Your task to perform on an android device: Search for flights from San Francisco to Tokyo Image 0: 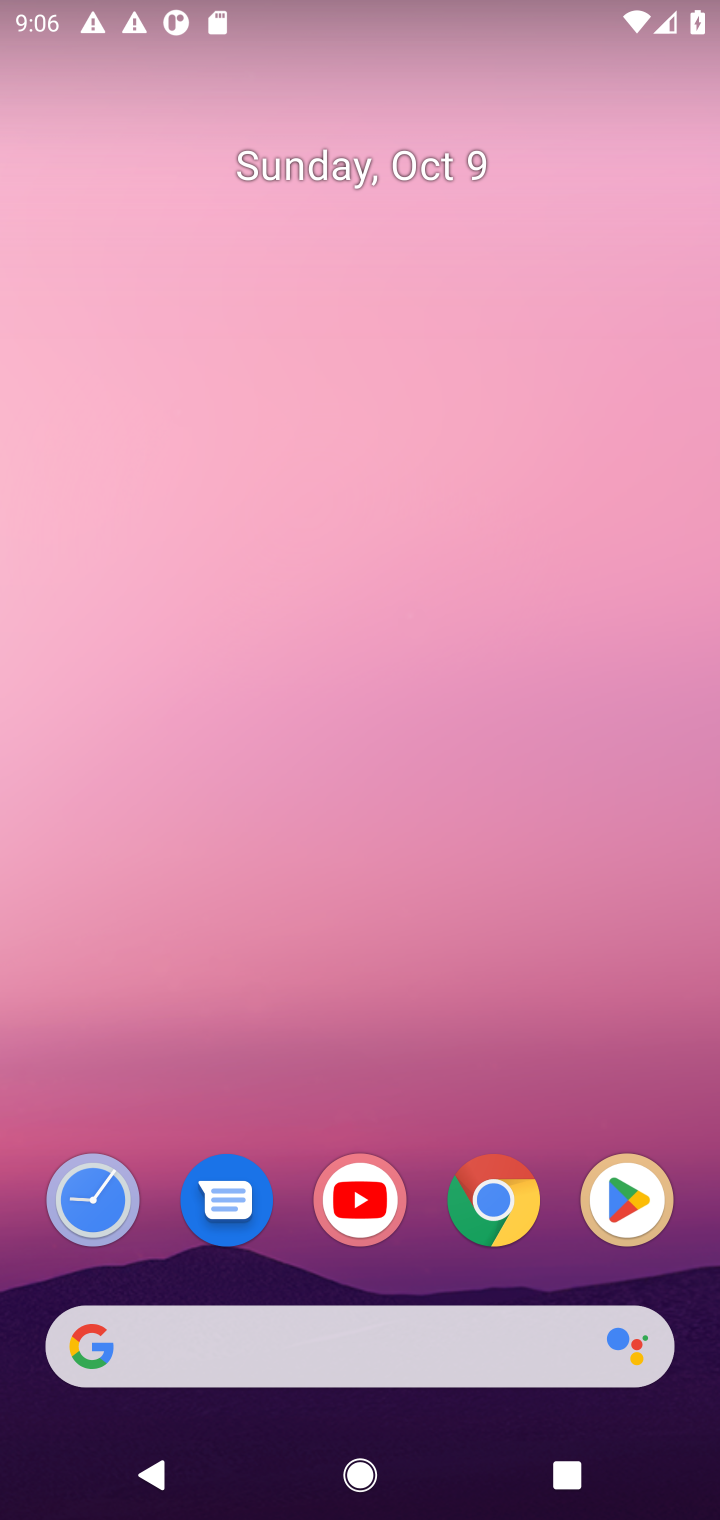
Step 0: click (501, 1177)
Your task to perform on an android device: Search for flights from San Francisco to Tokyo Image 1: 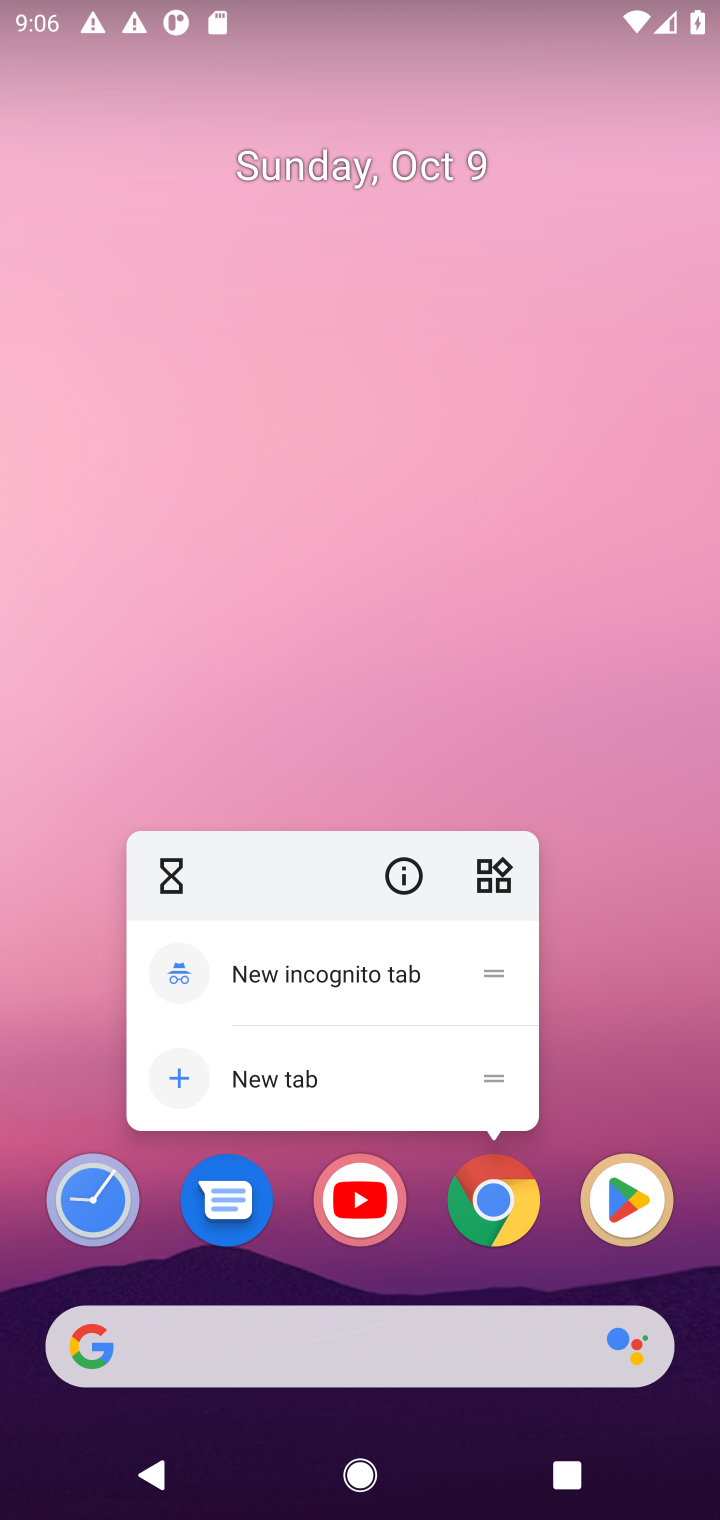
Step 1: click (491, 1210)
Your task to perform on an android device: Search for flights from San Francisco to Tokyo Image 2: 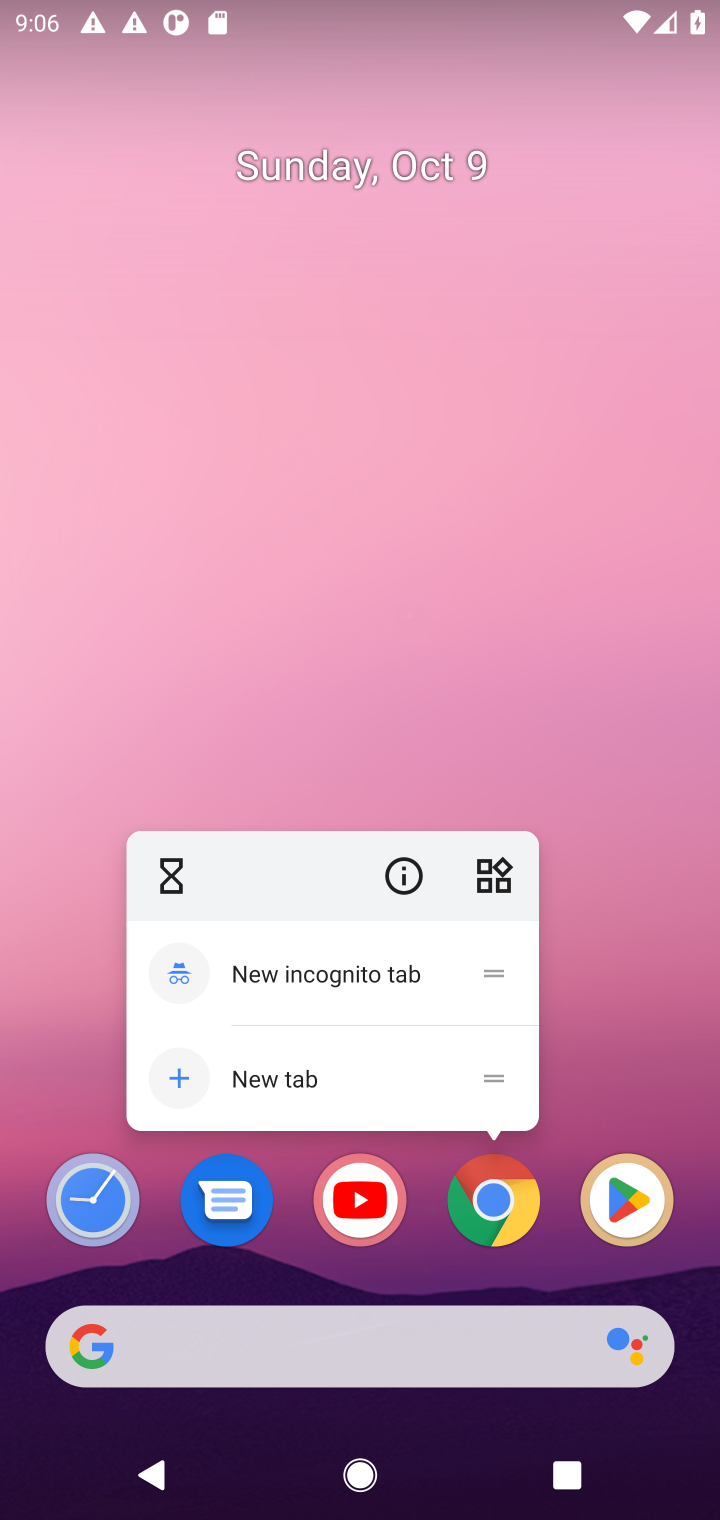
Step 2: click (483, 1203)
Your task to perform on an android device: Search for flights from San Francisco to Tokyo Image 3: 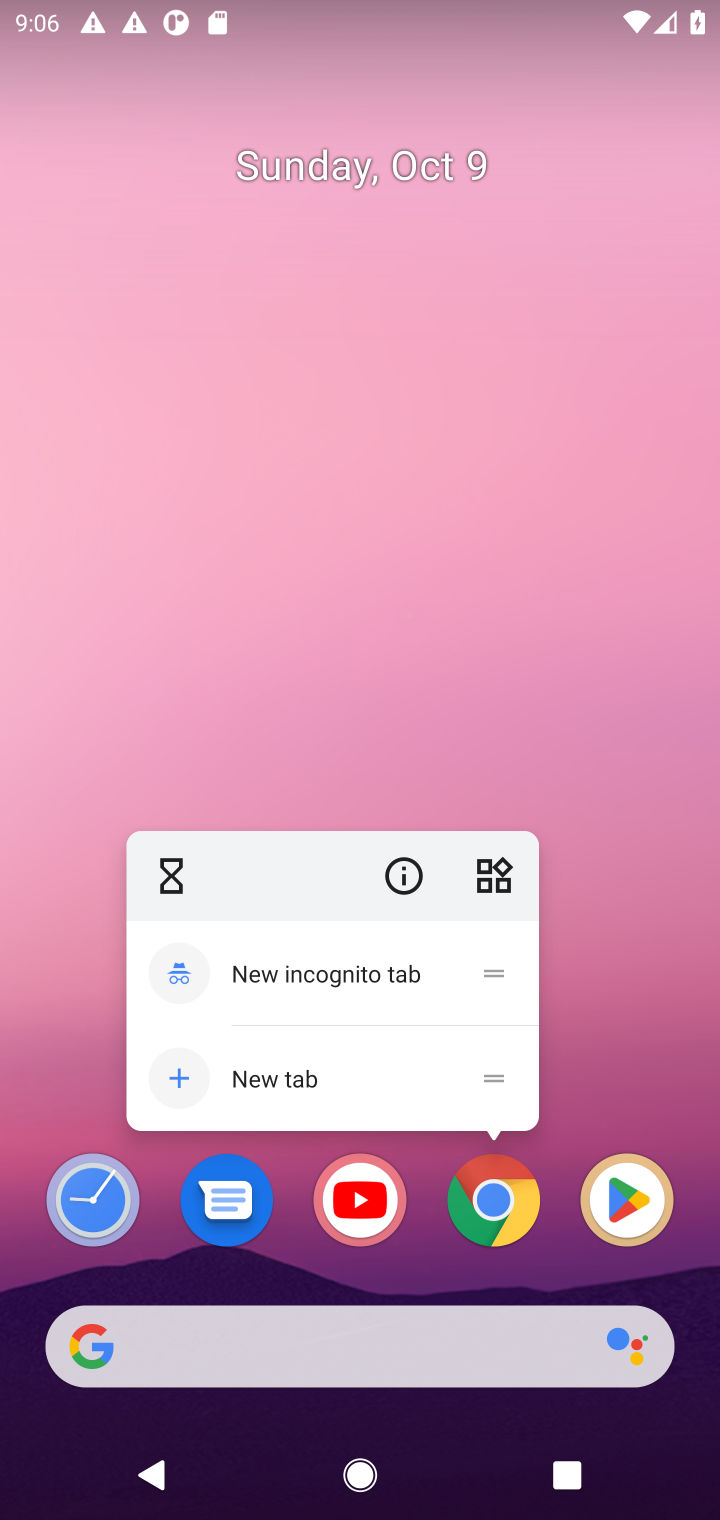
Step 3: click (483, 1203)
Your task to perform on an android device: Search for flights from San Francisco to Tokyo Image 4: 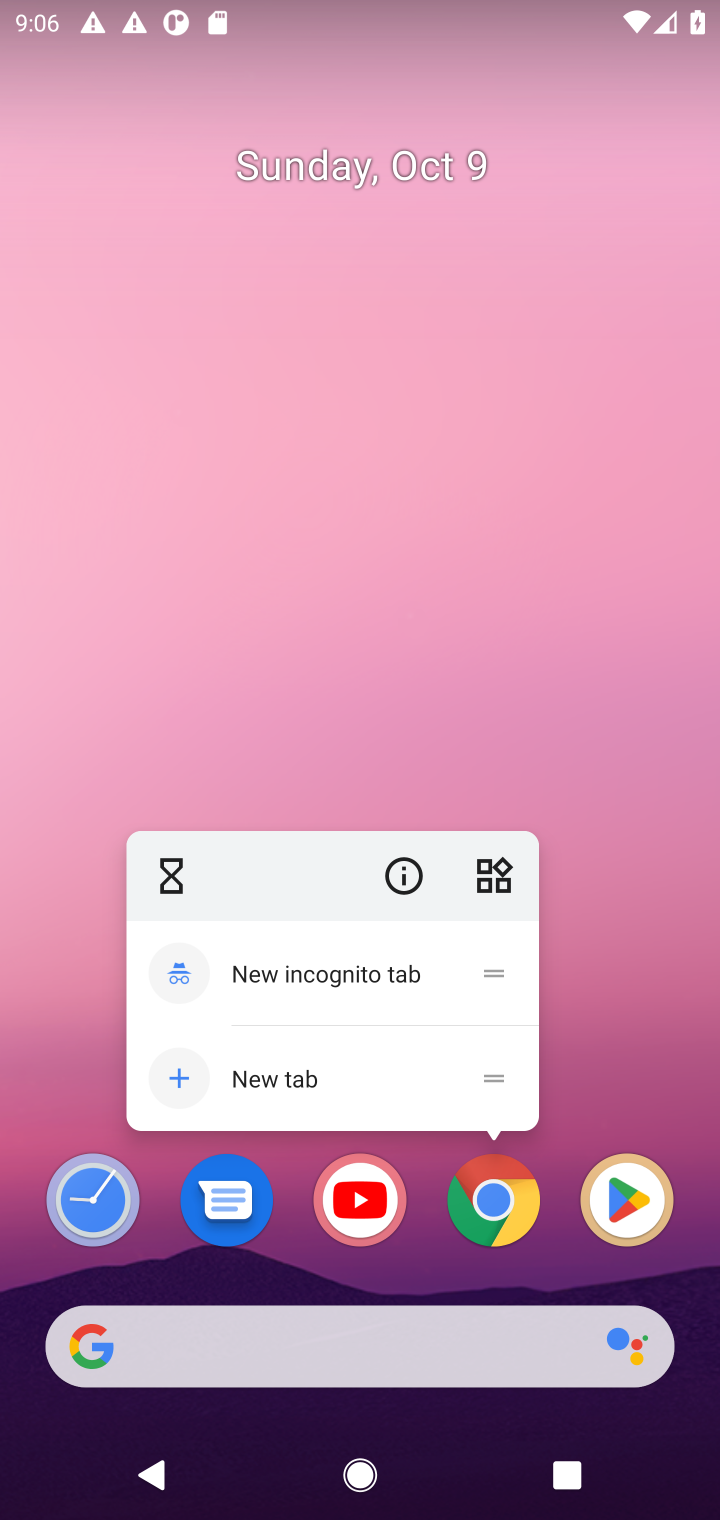
Step 4: click (483, 1203)
Your task to perform on an android device: Search for flights from San Francisco to Tokyo Image 5: 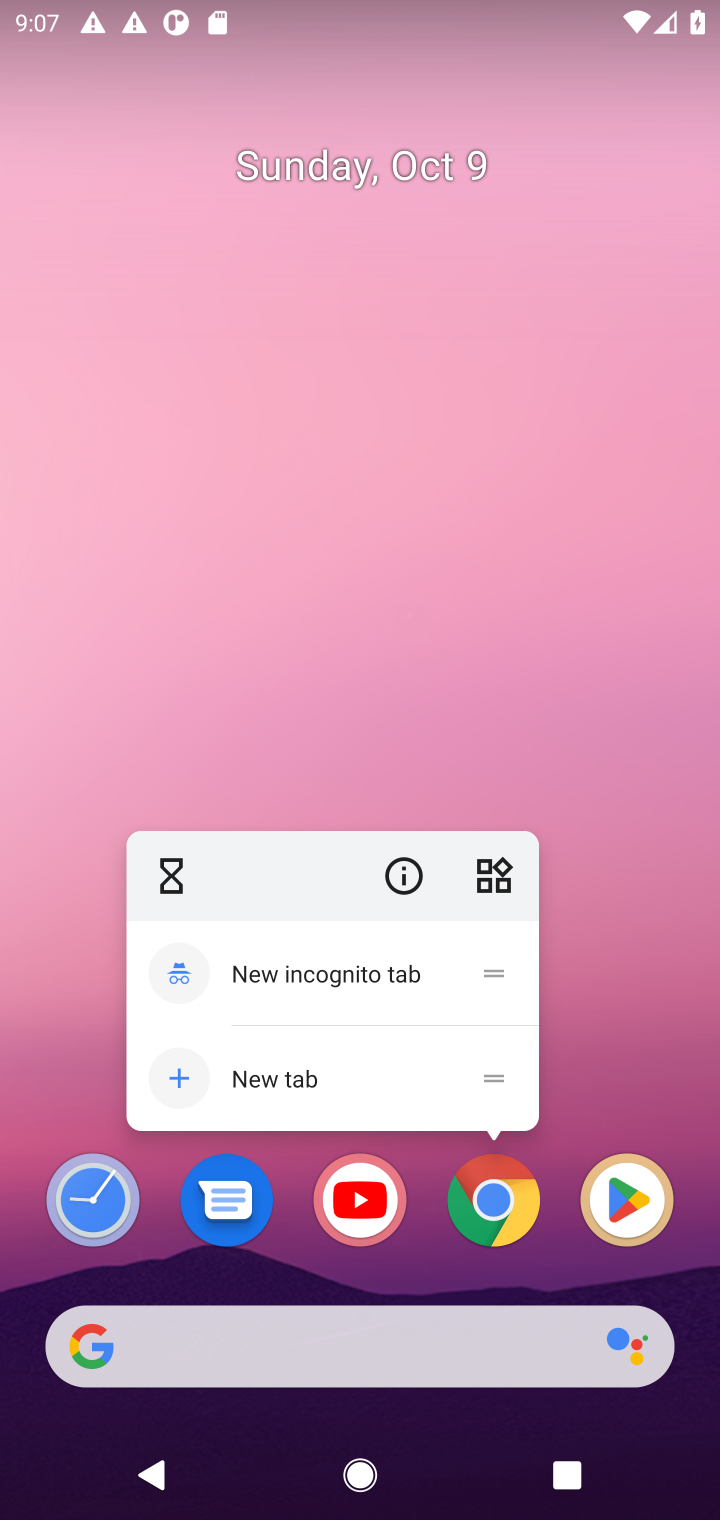
Step 5: click (485, 1190)
Your task to perform on an android device: Search for flights from San Francisco to Tokyo Image 6: 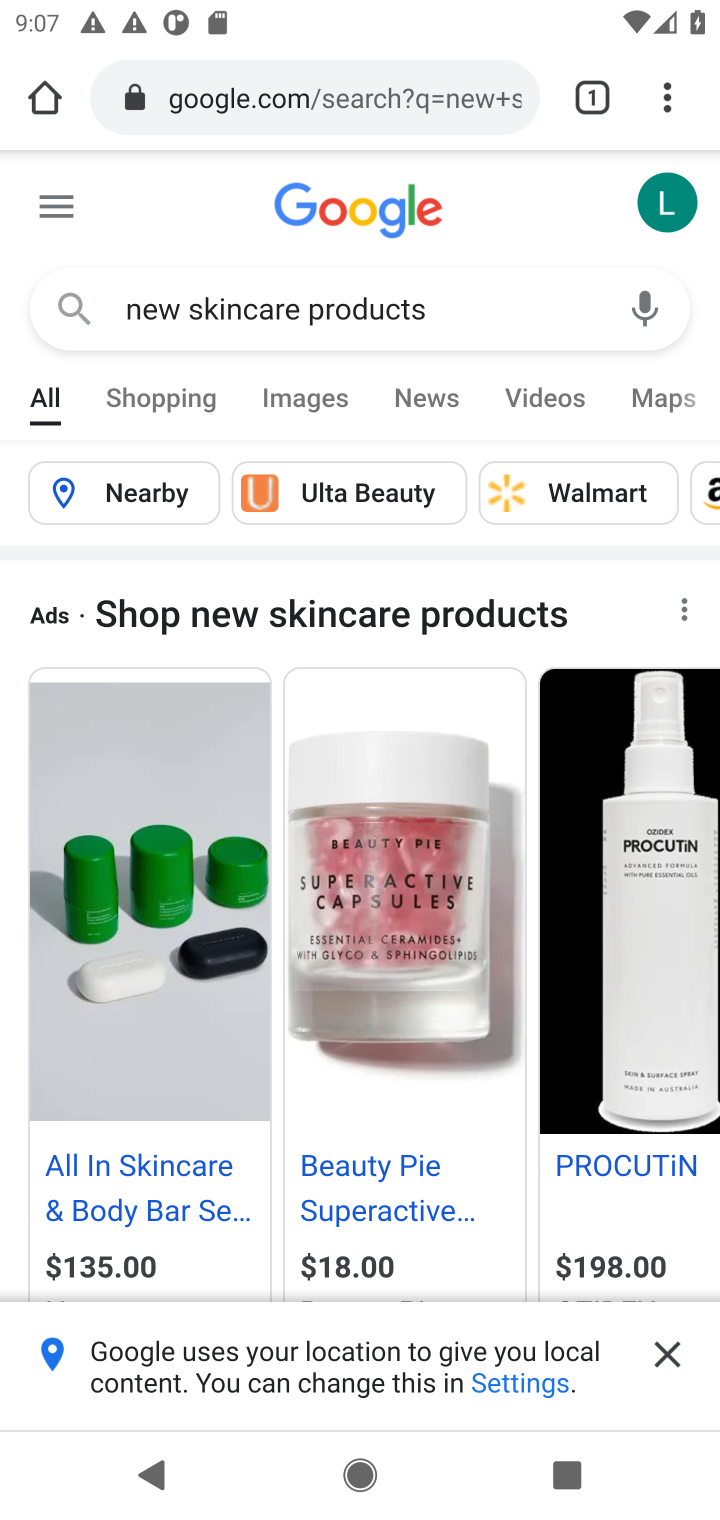
Step 6: click (387, 93)
Your task to perform on an android device: Search for flights from San Francisco to Tokyo Image 7: 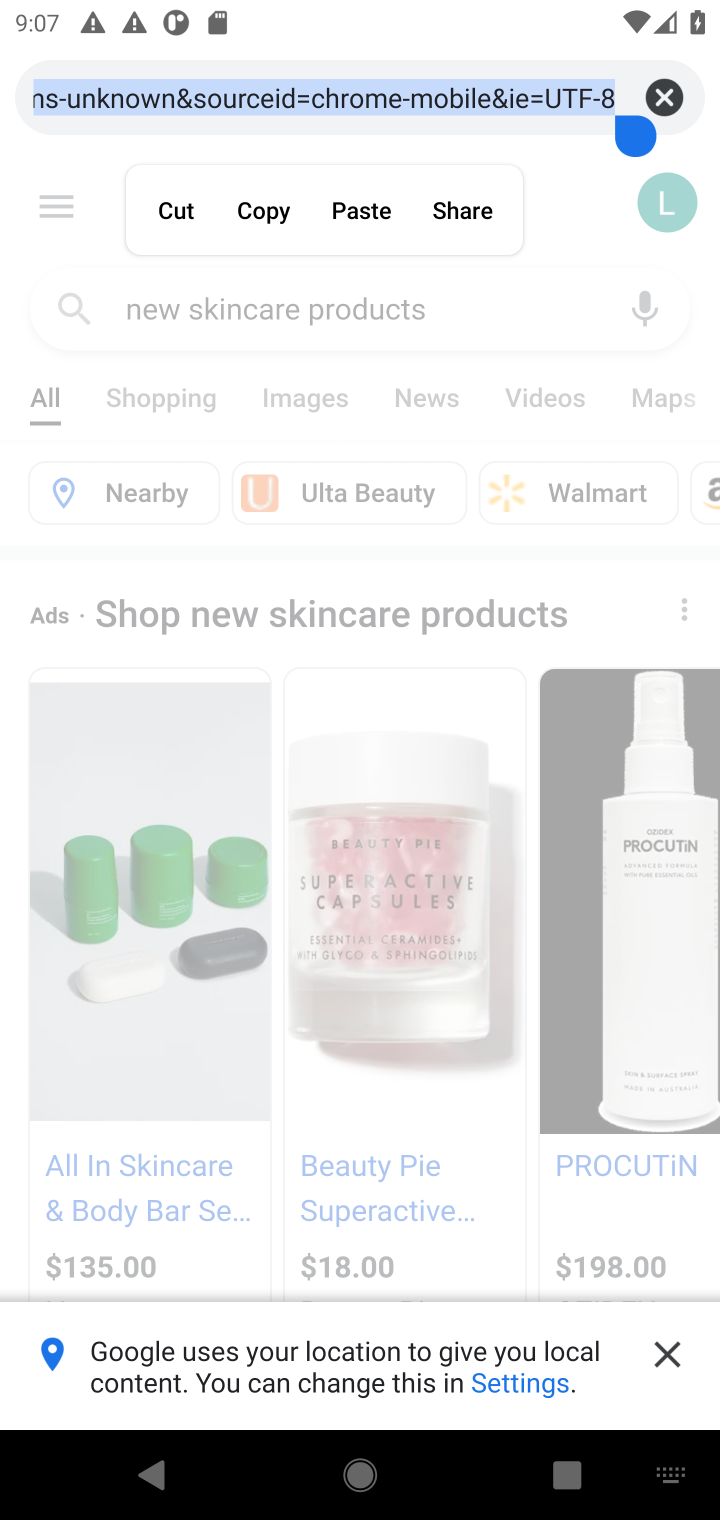
Step 7: click (675, 92)
Your task to perform on an android device: Search for flights from San Francisco to Tokyo Image 8: 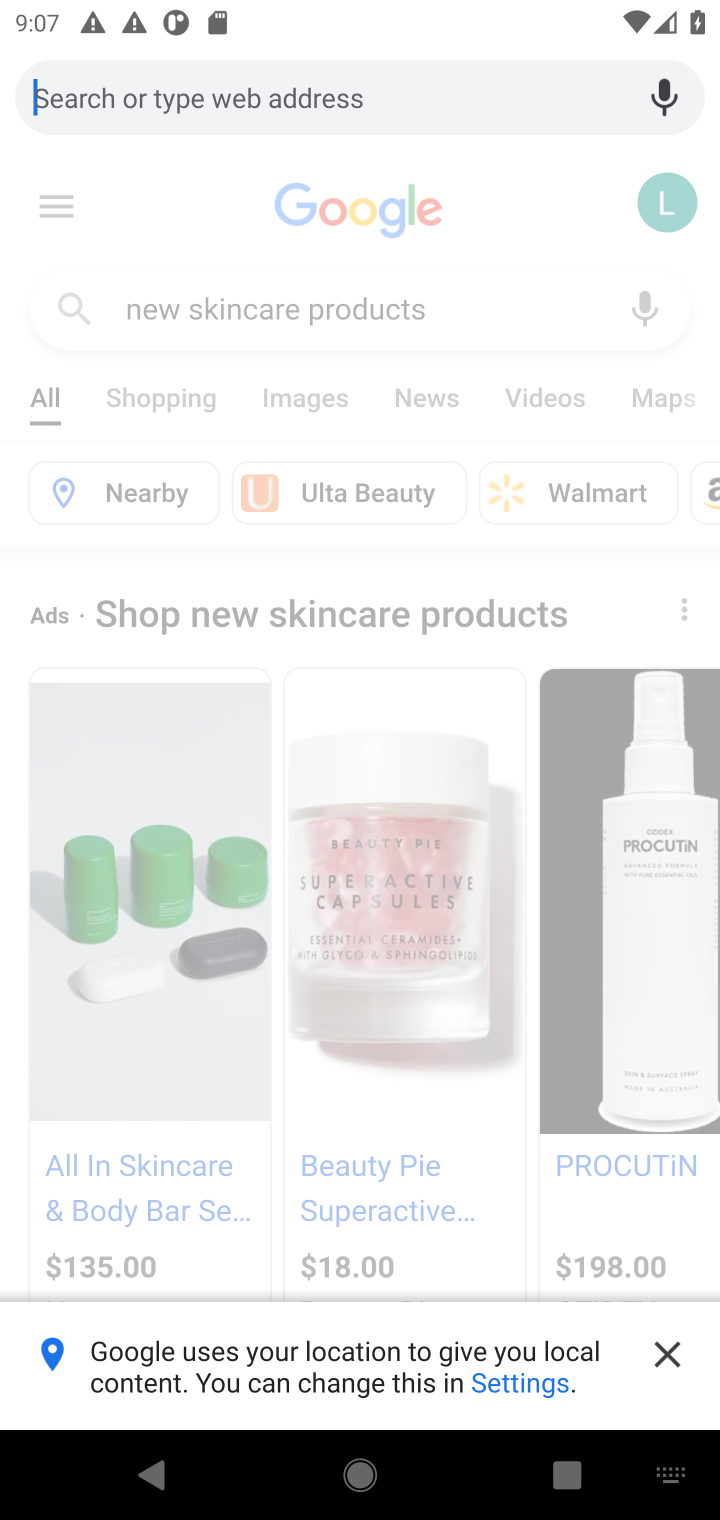
Step 8: type "flights from San Francisco to Tokyo"
Your task to perform on an android device: Search for flights from San Francisco to Tokyo Image 9: 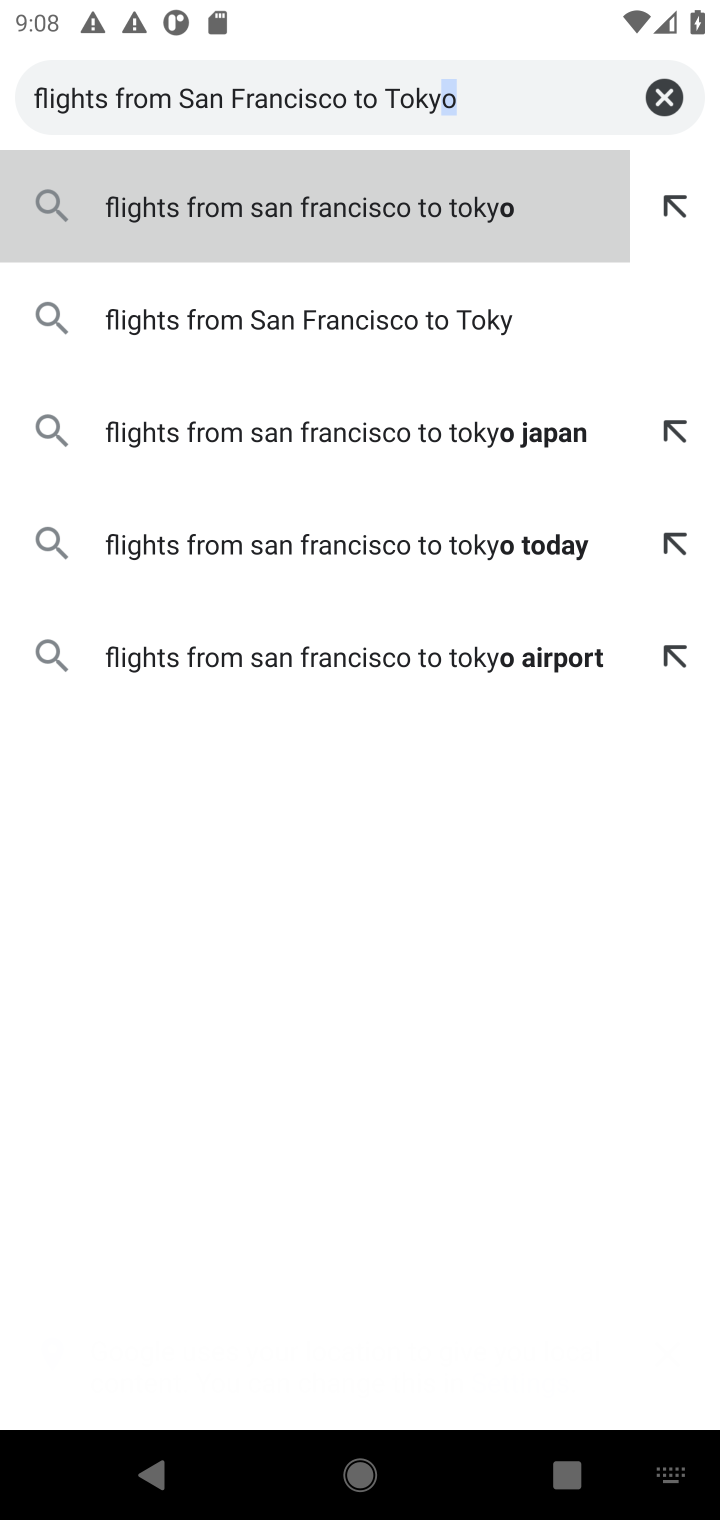
Step 9: click (366, 218)
Your task to perform on an android device: Search for flights from San Francisco to Tokyo Image 10: 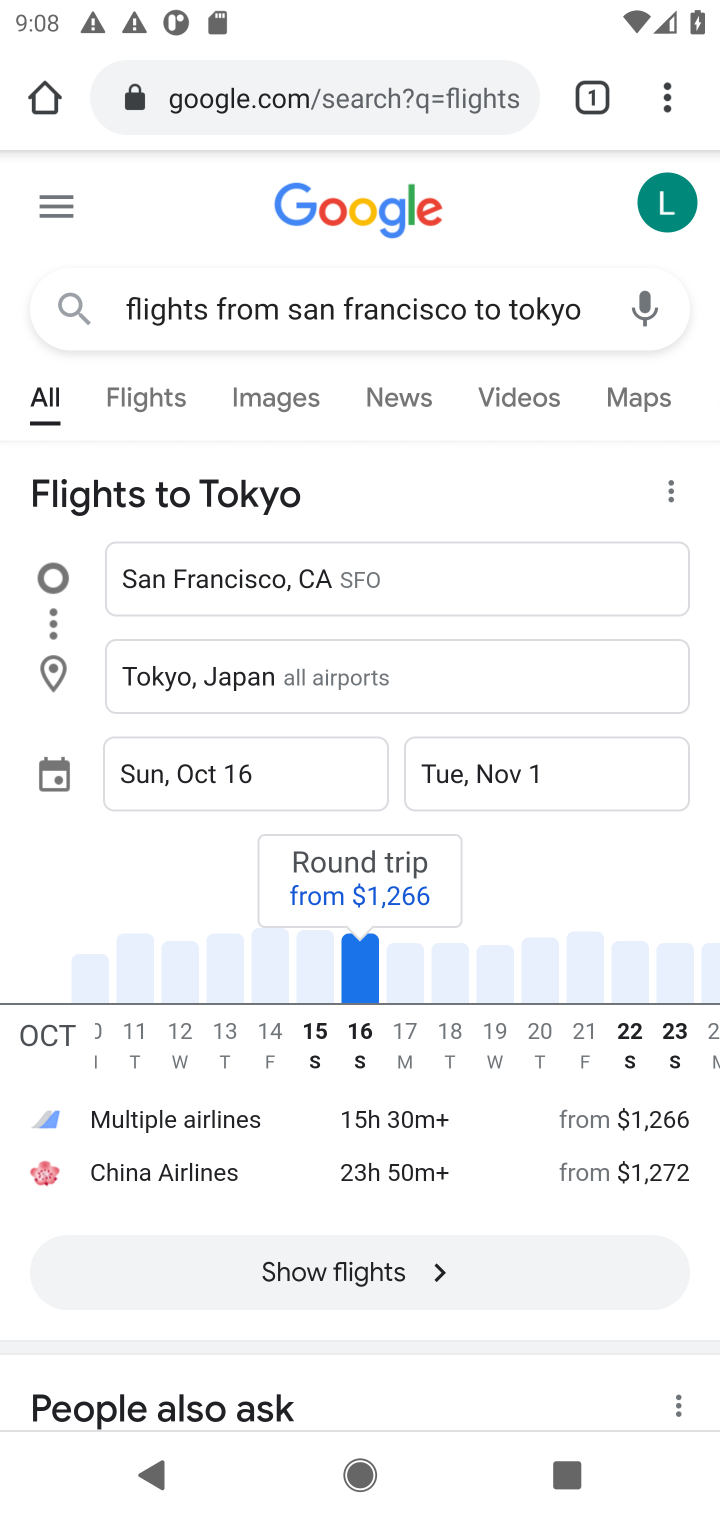
Step 10: task complete